Your task to perform on an android device: set the timer Image 0: 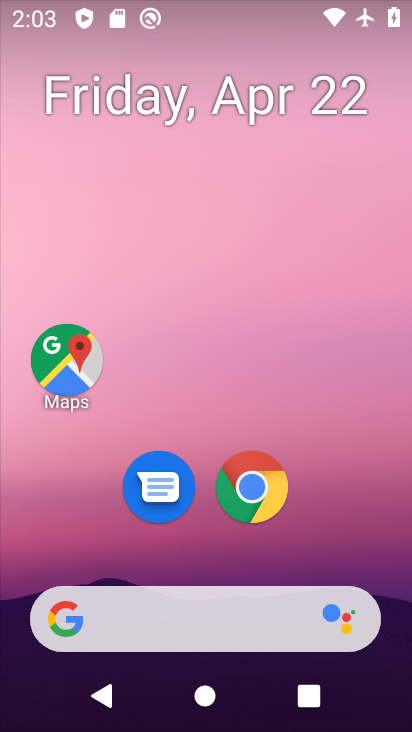
Step 0: drag from (188, 565) to (299, 169)
Your task to perform on an android device: set the timer Image 1: 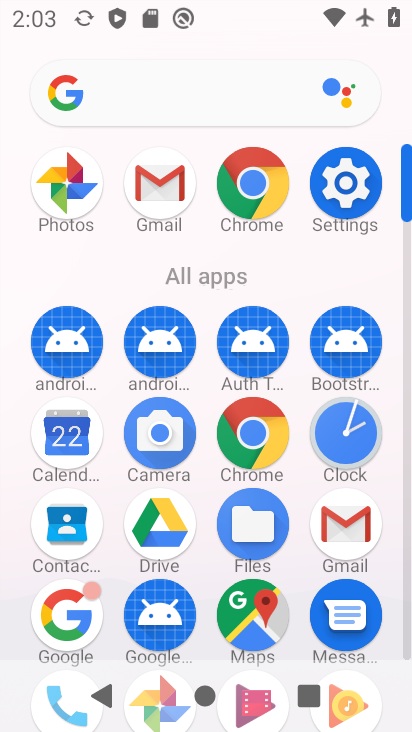
Step 1: click (343, 445)
Your task to perform on an android device: set the timer Image 2: 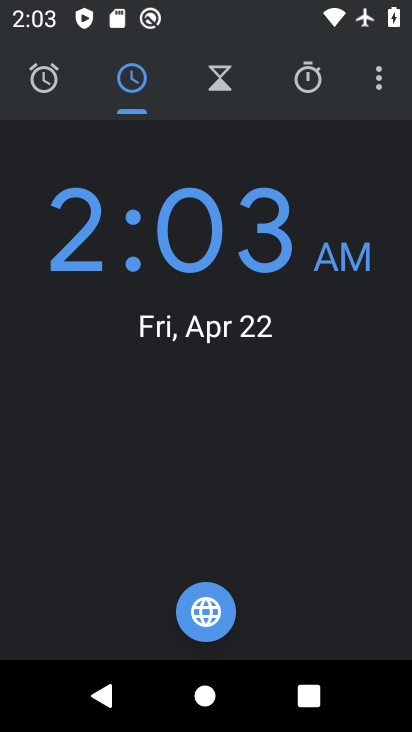
Step 2: click (222, 88)
Your task to perform on an android device: set the timer Image 3: 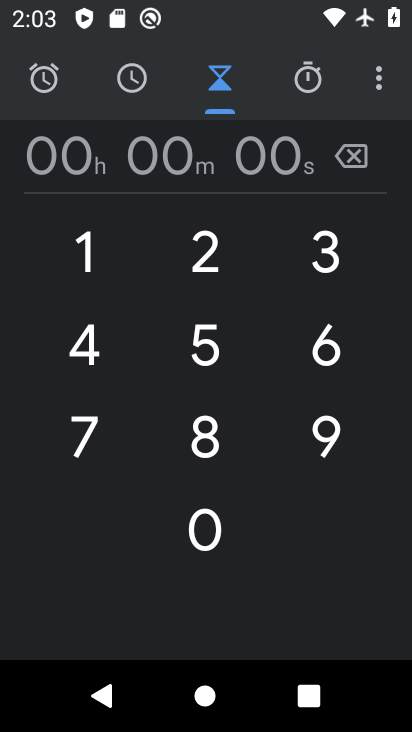
Step 3: click (93, 259)
Your task to perform on an android device: set the timer Image 4: 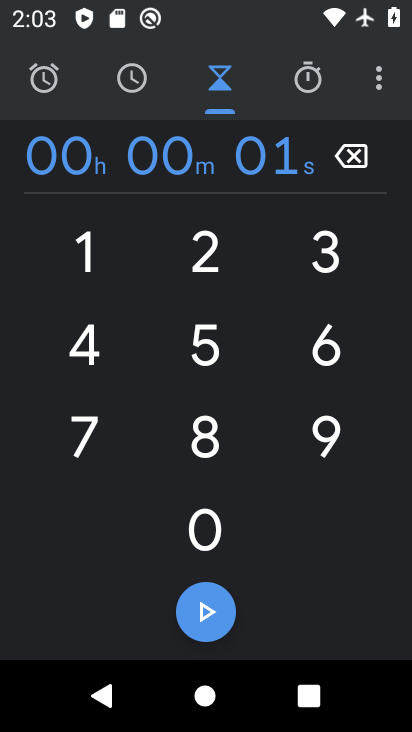
Step 4: click (93, 259)
Your task to perform on an android device: set the timer Image 5: 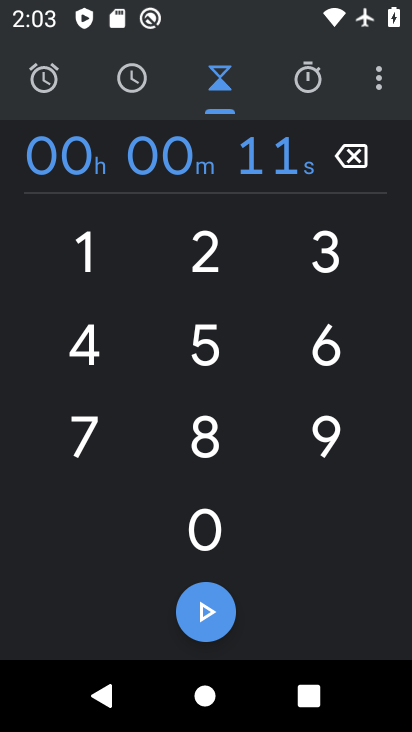
Step 5: click (216, 619)
Your task to perform on an android device: set the timer Image 6: 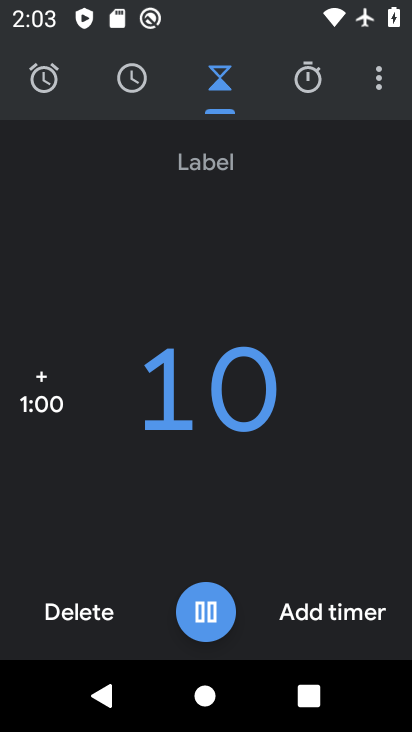
Step 6: click (202, 612)
Your task to perform on an android device: set the timer Image 7: 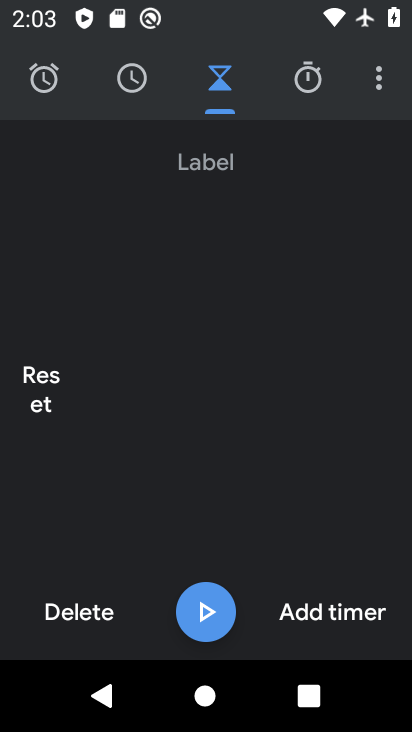
Step 7: task complete